Your task to perform on an android device: change alarm snooze length Image 0: 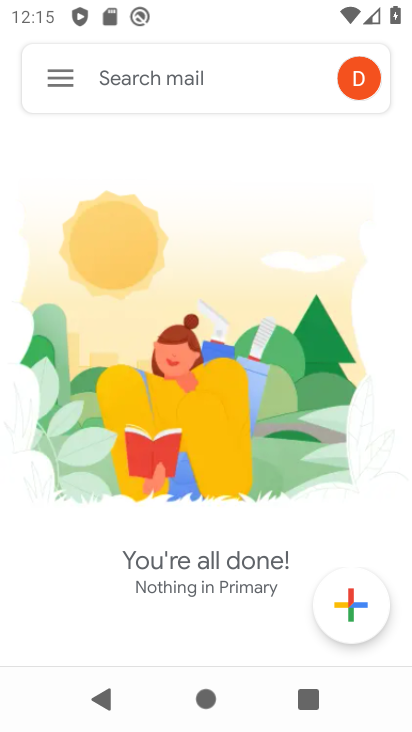
Step 0: press home button
Your task to perform on an android device: change alarm snooze length Image 1: 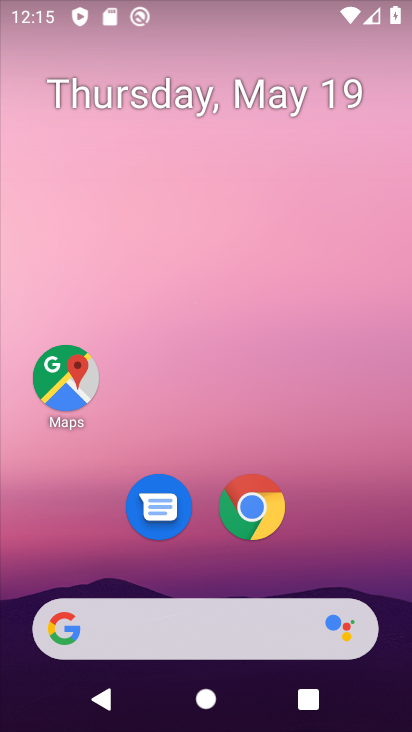
Step 1: drag from (214, 574) to (249, 124)
Your task to perform on an android device: change alarm snooze length Image 2: 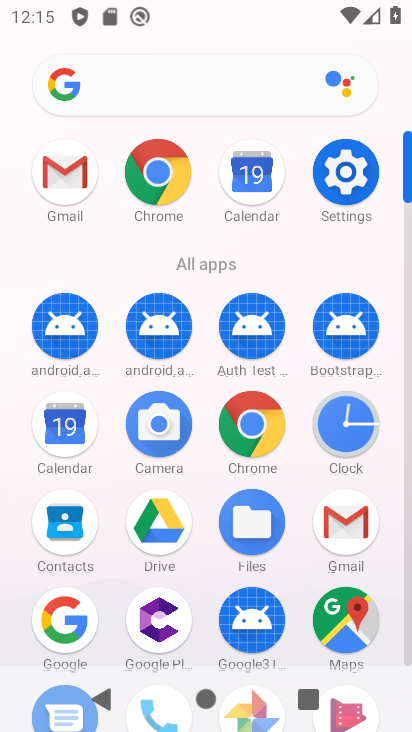
Step 2: click (330, 420)
Your task to perform on an android device: change alarm snooze length Image 3: 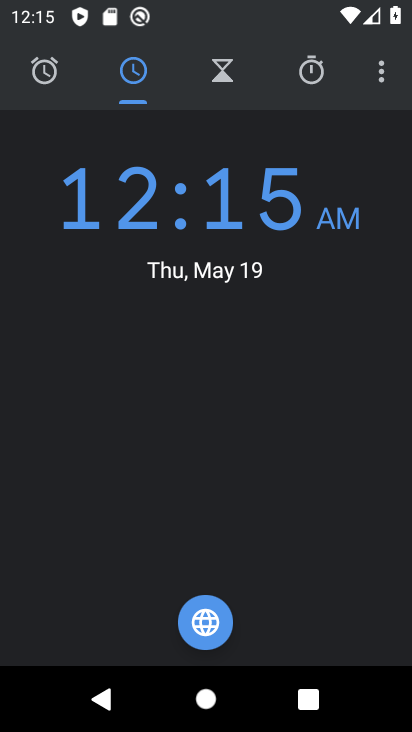
Step 3: click (374, 76)
Your task to perform on an android device: change alarm snooze length Image 4: 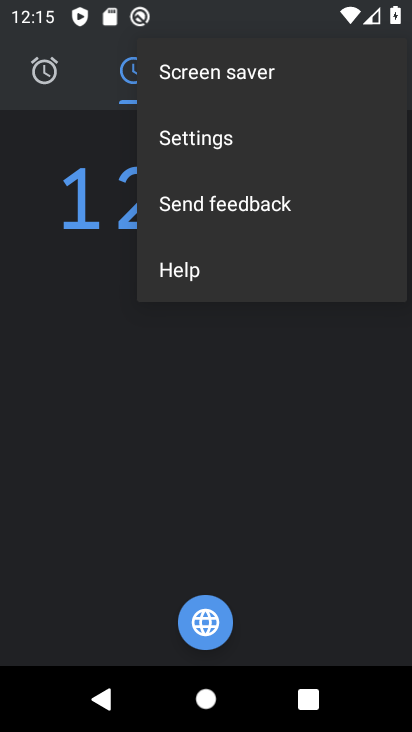
Step 4: click (228, 151)
Your task to perform on an android device: change alarm snooze length Image 5: 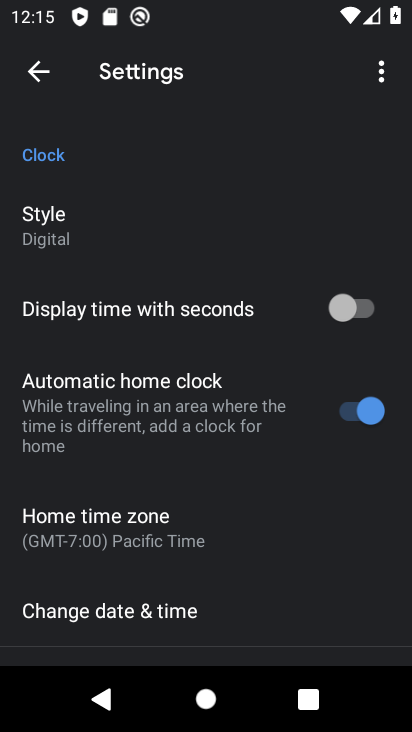
Step 5: drag from (170, 474) to (196, 275)
Your task to perform on an android device: change alarm snooze length Image 6: 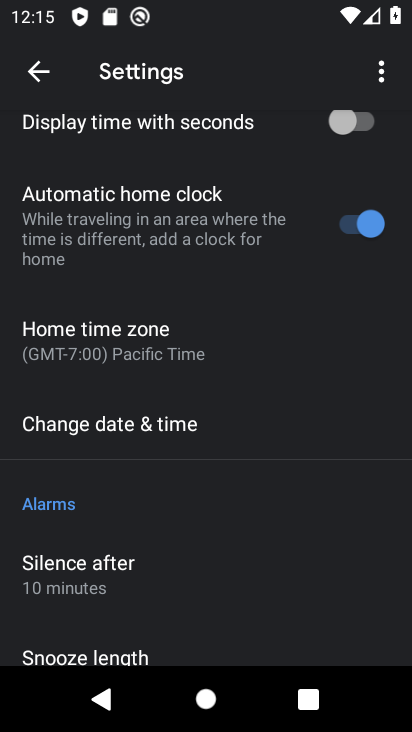
Step 6: drag from (138, 568) to (172, 407)
Your task to perform on an android device: change alarm snooze length Image 7: 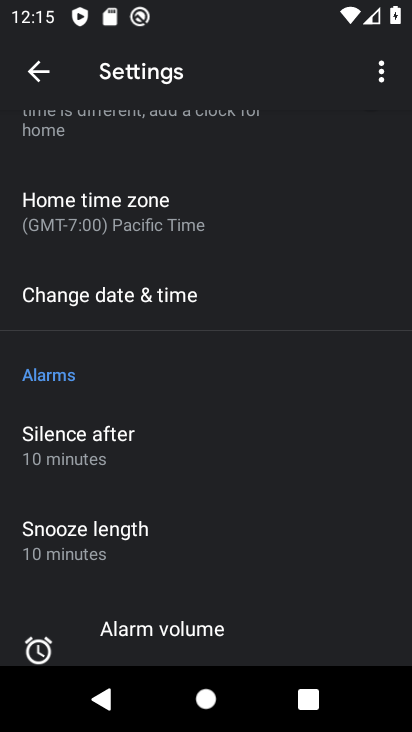
Step 7: click (136, 553)
Your task to perform on an android device: change alarm snooze length Image 8: 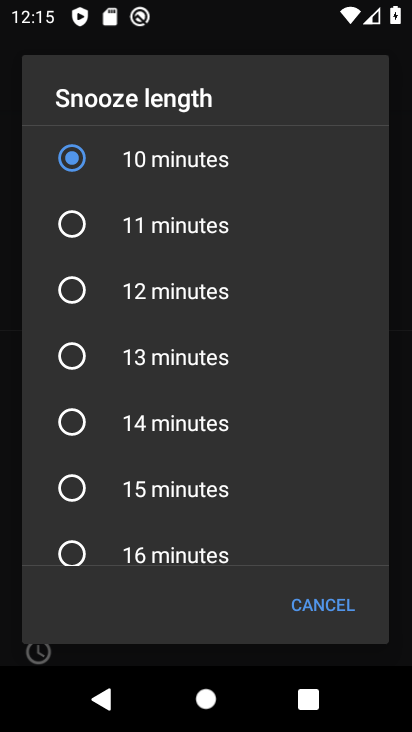
Step 8: click (97, 358)
Your task to perform on an android device: change alarm snooze length Image 9: 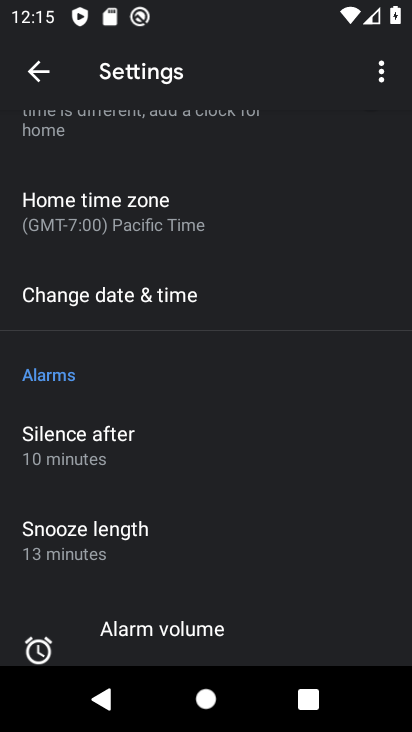
Step 9: task complete